Your task to perform on an android device: Open maps Image 0: 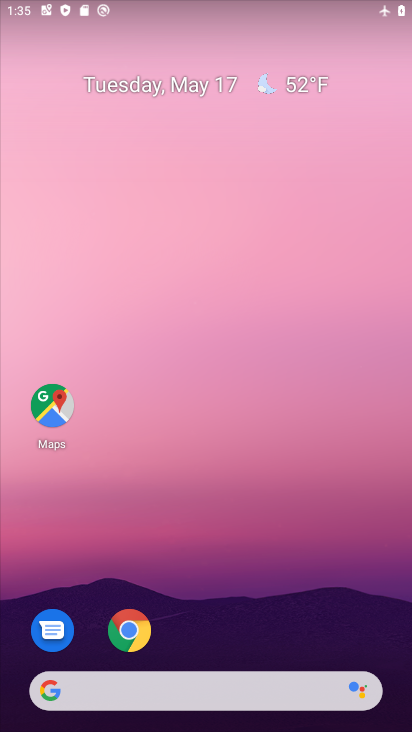
Step 0: click (39, 411)
Your task to perform on an android device: Open maps Image 1: 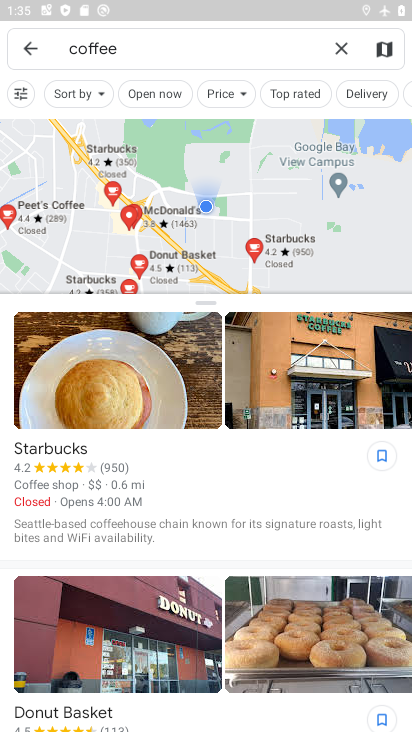
Step 1: task complete